Your task to perform on an android device: See recent photos Image 0: 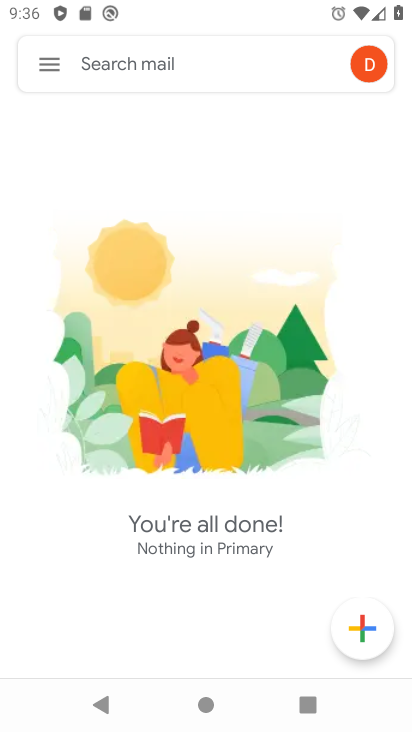
Step 0: press back button
Your task to perform on an android device: See recent photos Image 1: 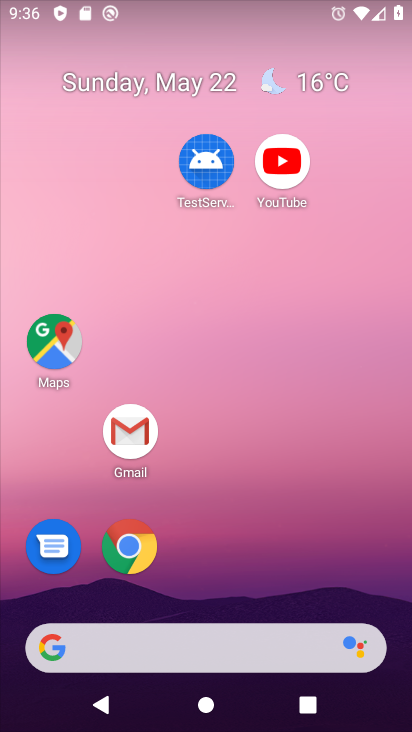
Step 1: drag from (196, 579) to (115, 53)
Your task to perform on an android device: See recent photos Image 2: 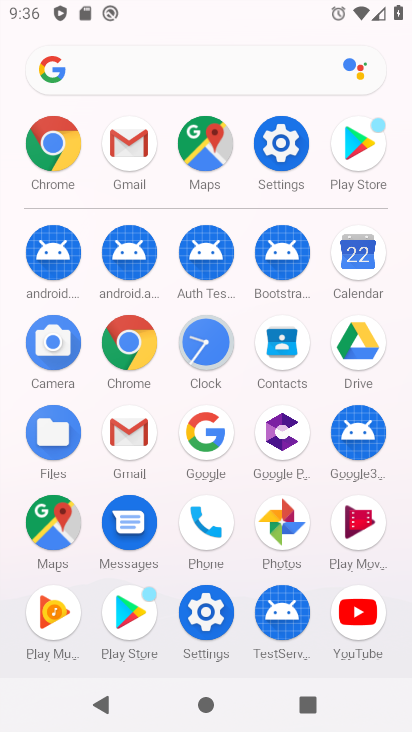
Step 2: click (289, 517)
Your task to perform on an android device: See recent photos Image 3: 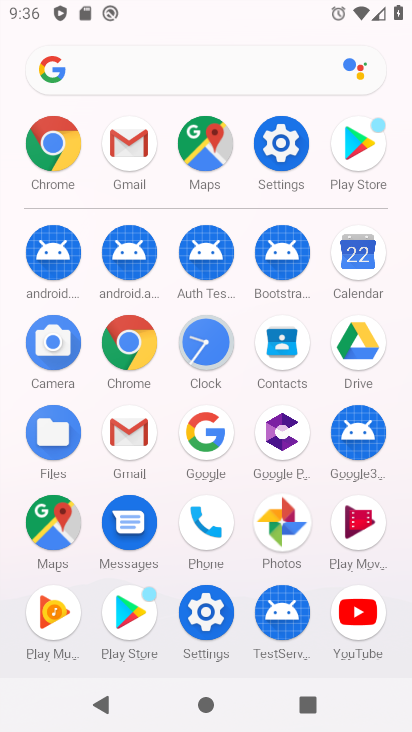
Step 3: click (289, 517)
Your task to perform on an android device: See recent photos Image 4: 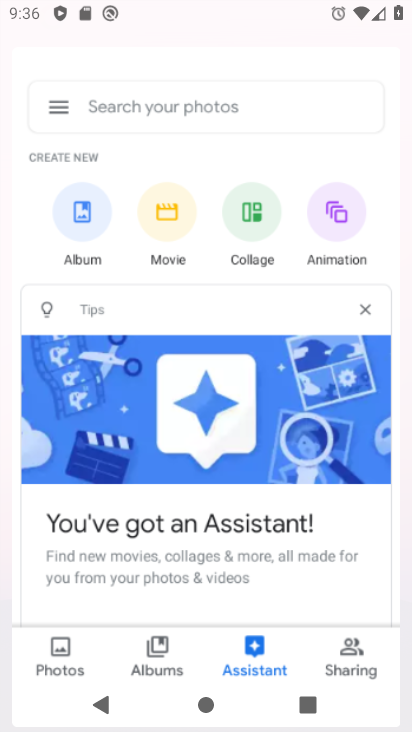
Step 4: click (296, 510)
Your task to perform on an android device: See recent photos Image 5: 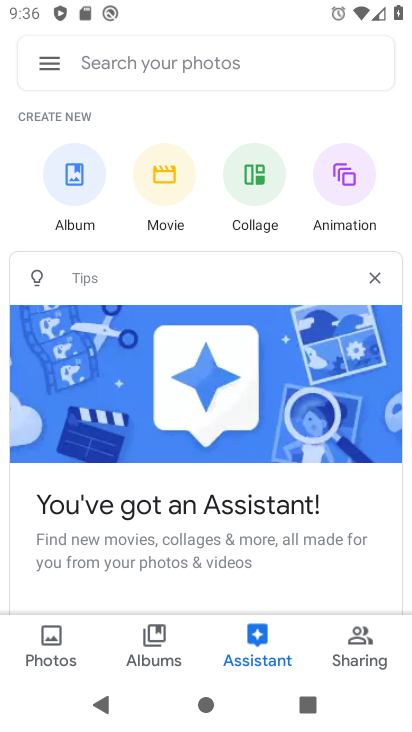
Step 5: click (298, 508)
Your task to perform on an android device: See recent photos Image 6: 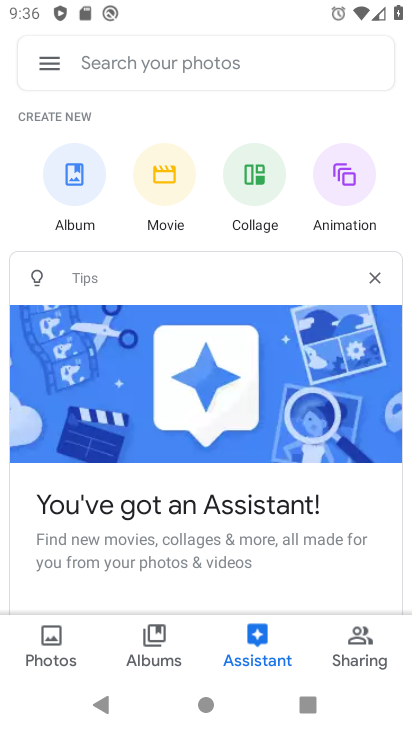
Step 6: drag from (187, 508) to (187, 148)
Your task to perform on an android device: See recent photos Image 7: 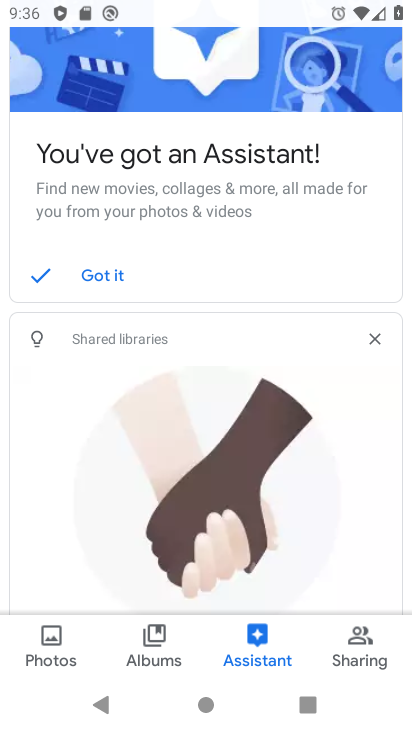
Step 7: drag from (205, 355) to (205, 165)
Your task to perform on an android device: See recent photos Image 8: 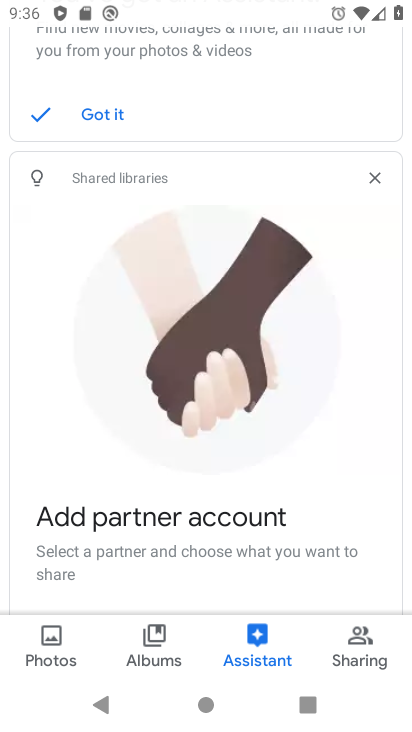
Step 8: click (49, 641)
Your task to perform on an android device: See recent photos Image 9: 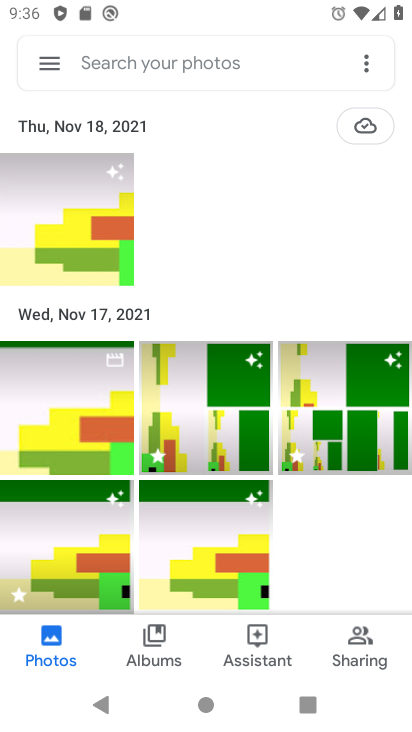
Step 9: task complete